Your task to perform on an android device: choose inbox layout in the gmail app Image 0: 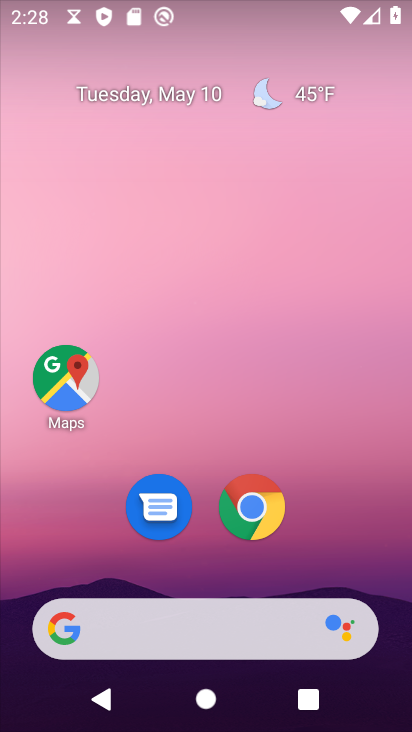
Step 0: drag from (339, 419) to (200, 139)
Your task to perform on an android device: choose inbox layout in the gmail app Image 1: 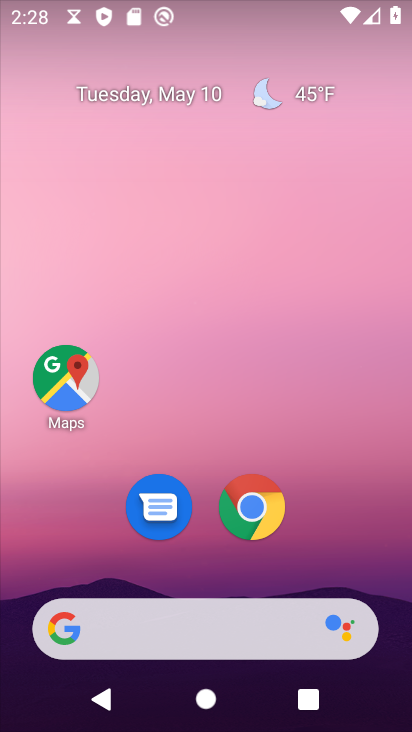
Step 1: drag from (328, 541) to (349, 63)
Your task to perform on an android device: choose inbox layout in the gmail app Image 2: 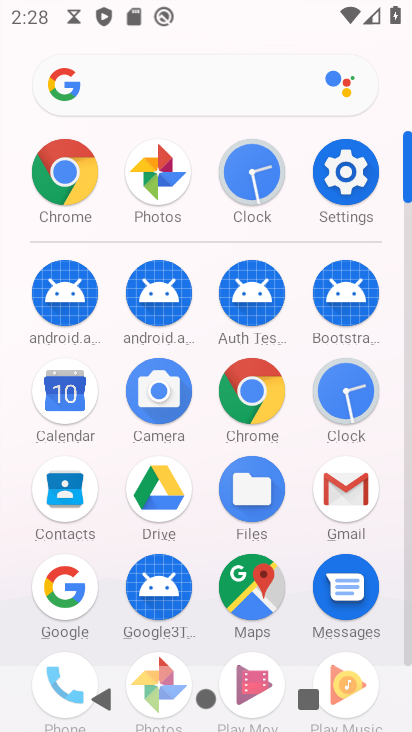
Step 2: click (346, 465)
Your task to perform on an android device: choose inbox layout in the gmail app Image 3: 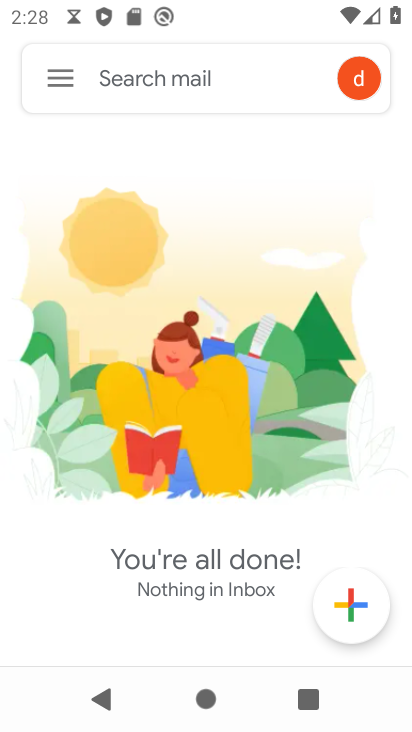
Step 3: click (59, 82)
Your task to perform on an android device: choose inbox layout in the gmail app Image 4: 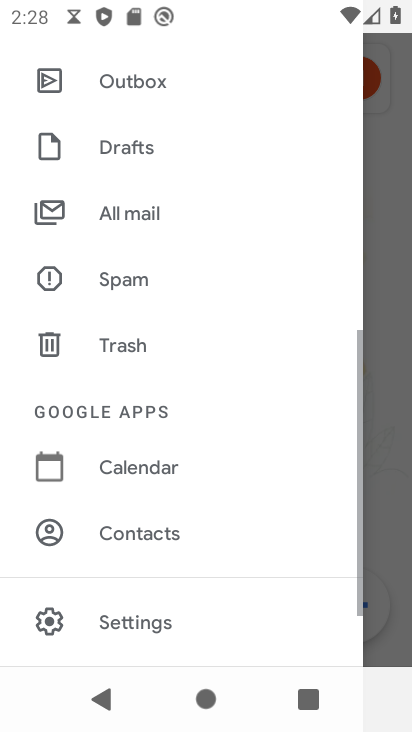
Step 4: task complete